Your task to perform on an android device: turn on the 24-hour format for clock Image 0: 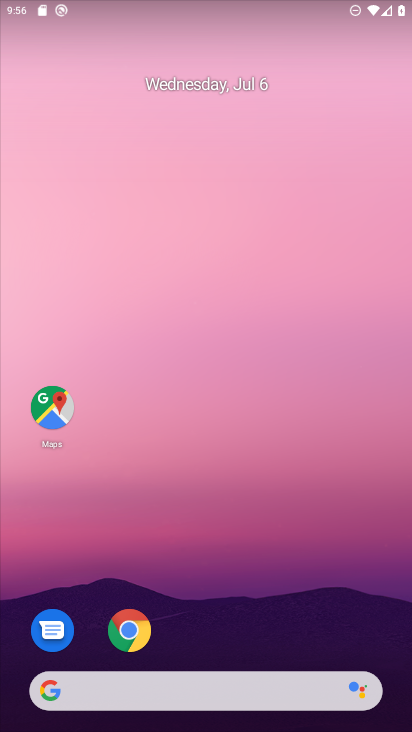
Step 0: drag from (264, 535) to (267, 12)
Your task to perform on an android device: turn on the 24-hour format for clock Image 1: 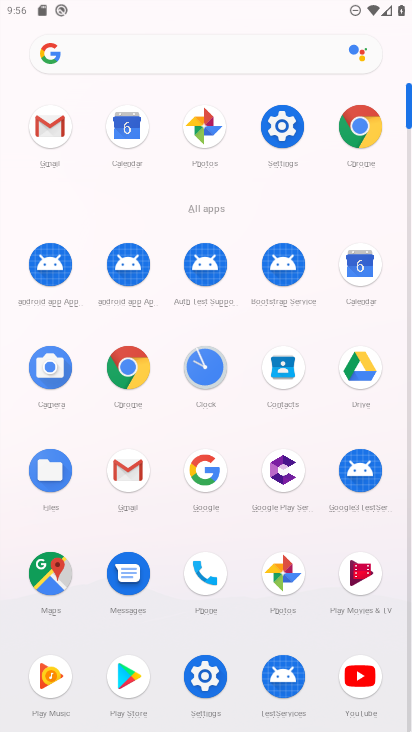
Step 1: click (281, 152)
Your task to perform on an android device: turn on the 24-hour format for clock Image 2: 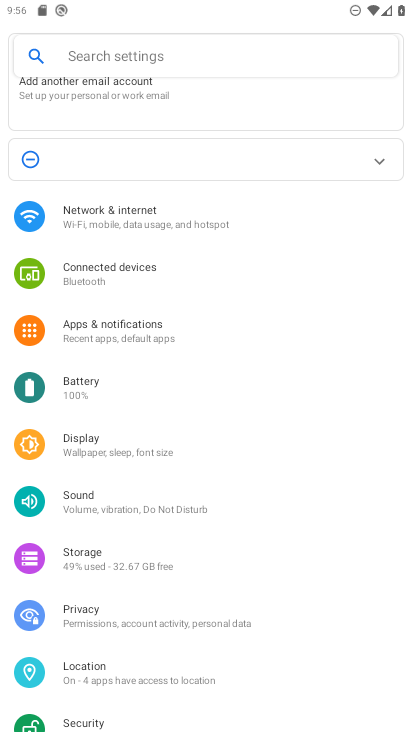
Step 2: press home button
Your task to perform on an android device: turn on the 24-hour format for clock Image 3: 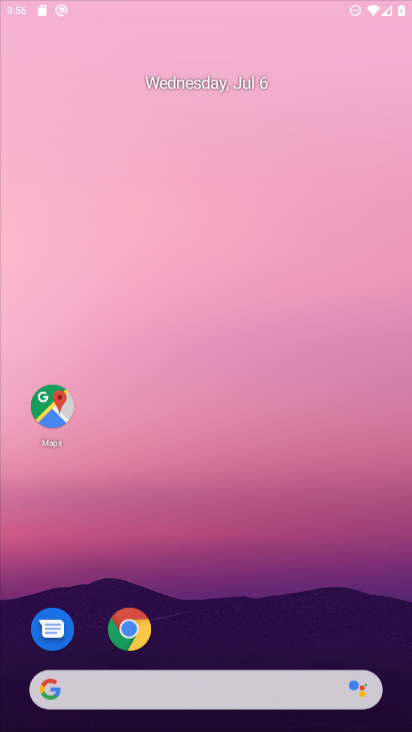
Step 3: drag from (250, 672) to (254, 76)
Your task to perform on an android device: turn on the 24-hour format for clock Image 4: 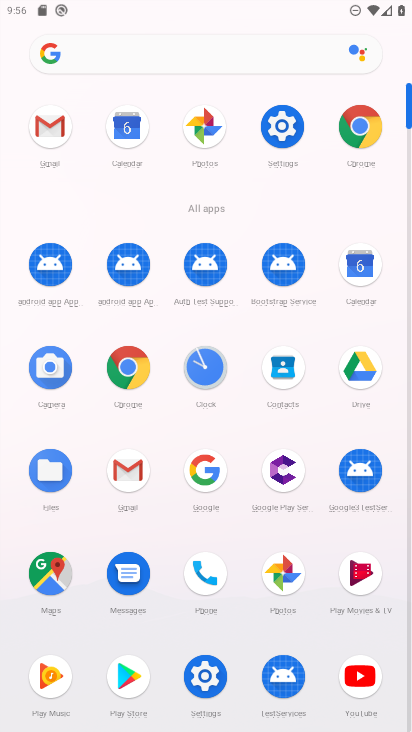
Step 4: click (194, 390)
Your task to perform on an android device: turn on the 24-hour format for clock Image 5: 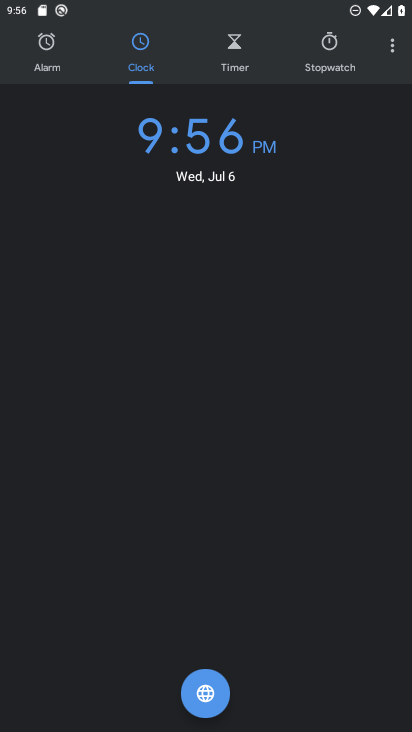
Step 5: click (390, 42)
Your task to perform on an android device: turn on the 24-hour format for clock Image 6: 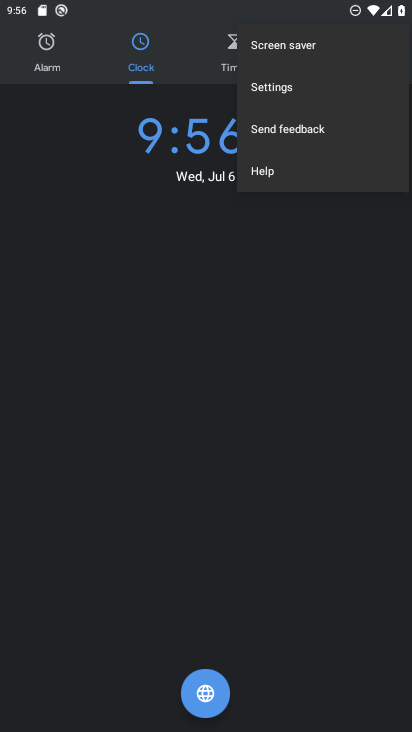
Step 6: click (279, 102)
Your task to perform on an android device: turn on the 24-hour format for clock Image 7: 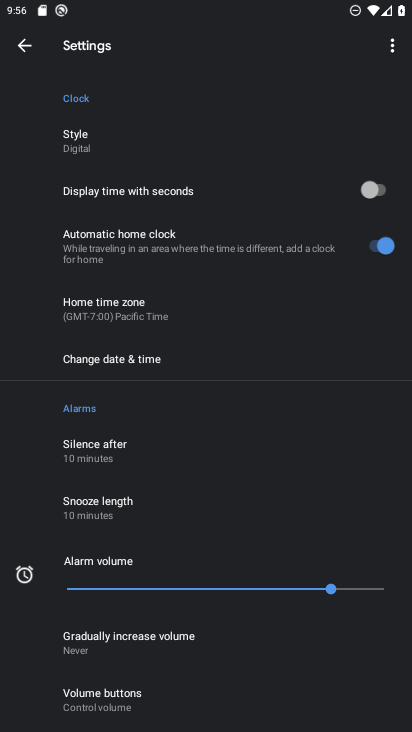
Step 7: drag from (239, 627) to (273, 99)
Your task to perform on an android device: turn on the 24-hour format for clock Image 8: 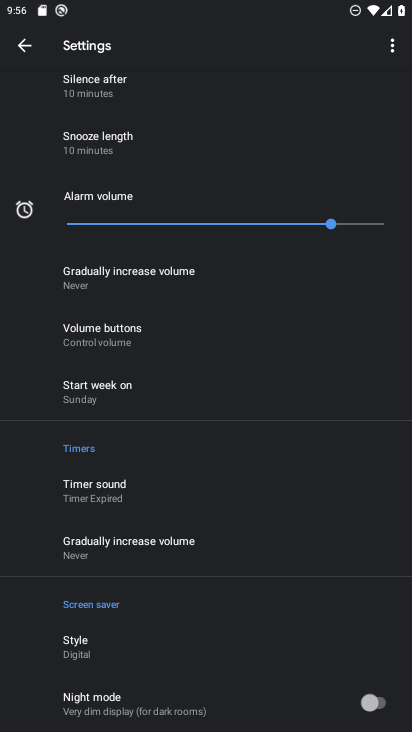
Step 8: drag from (83, 646) to (114, 262)
Your task to perform on an android device: turn on the 24-hour format for clock Image 9: 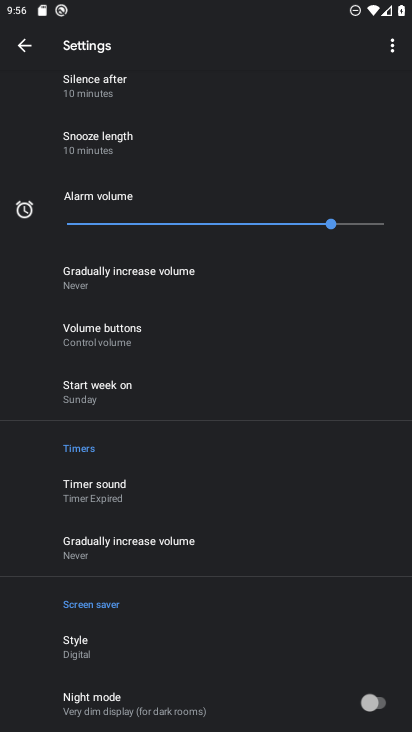
Step 9: drag from (87, 164) to (121, 545)
Your task to perform on an android device: turn on the 24-hour format for clock Image 10: 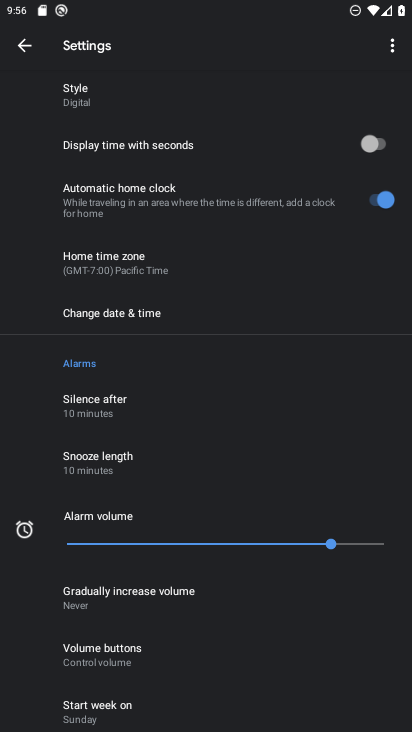
Step 10: click (125, 305)
Your task to perform on an android device: turn on the 24-hour format for clock Image 11: 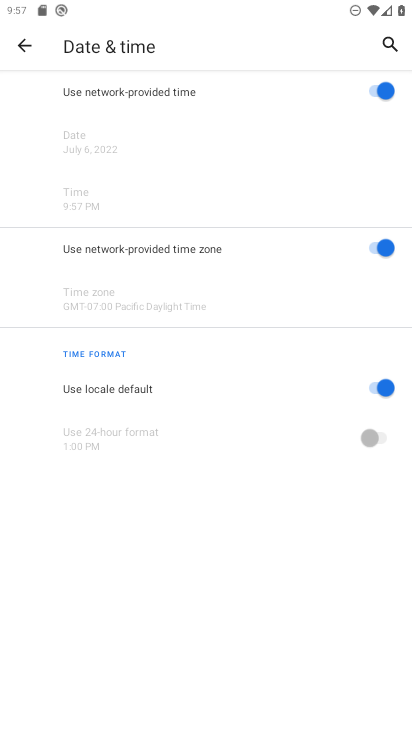
Step 11: click (340, 396)
Your task to perform on an android device: turn on the 24-hour format for clock Image 12: 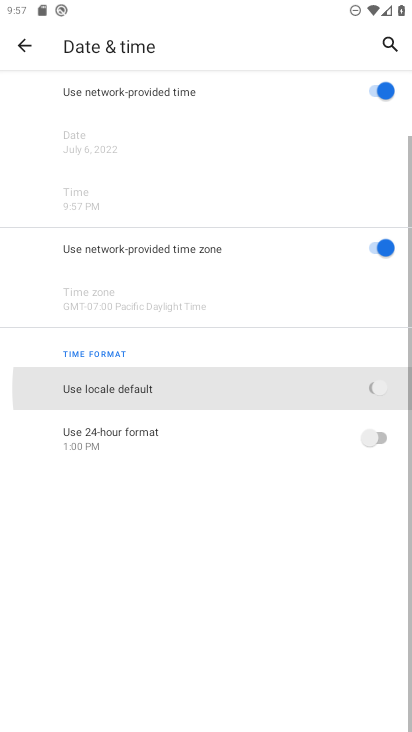
Step 12: click (332, 437)
Your task to perform on an android device: turn on the 24-hour format for clock Image 13: 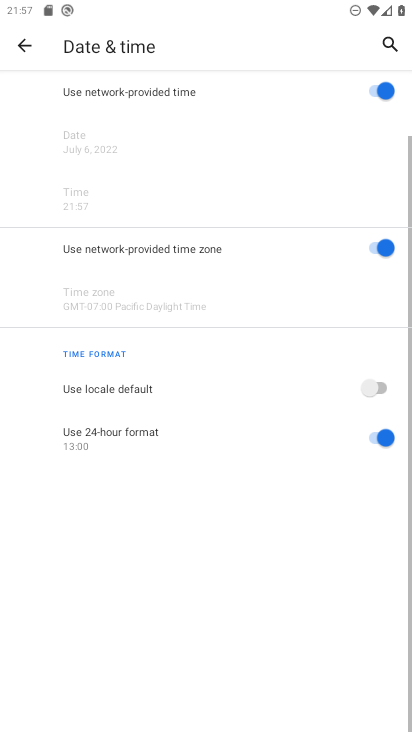
Step 13: task complete